Your task to perform on an android device: Open the calendar app, open the side menu, and click the "Day" option Image 0: 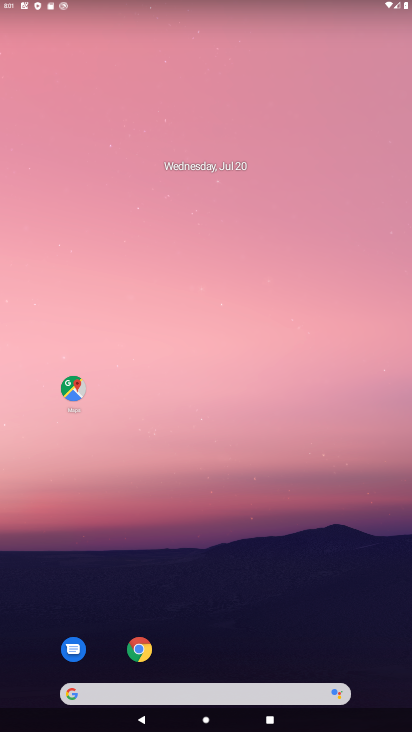
Step 0: drag from (208, 662) to (131, 125)
Your task to perform on an android device: Open the calendar app, open the side menu, and click the "Day" option Image 1: 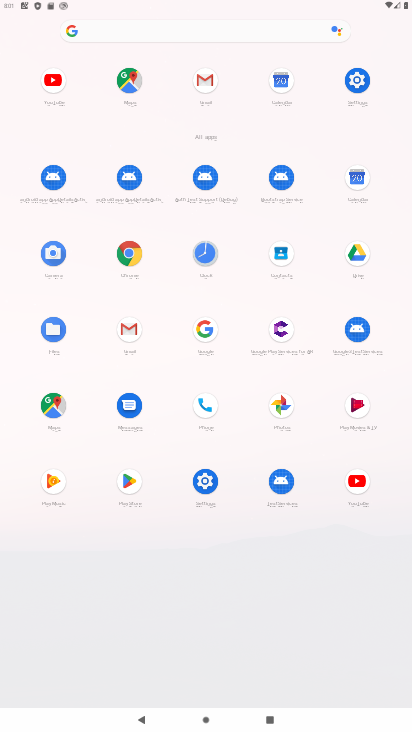
Step 1: click (342, 99)
Your task to perform on an android device: Open the calendar app, open the side menu, and click the "Day" option Image 2: 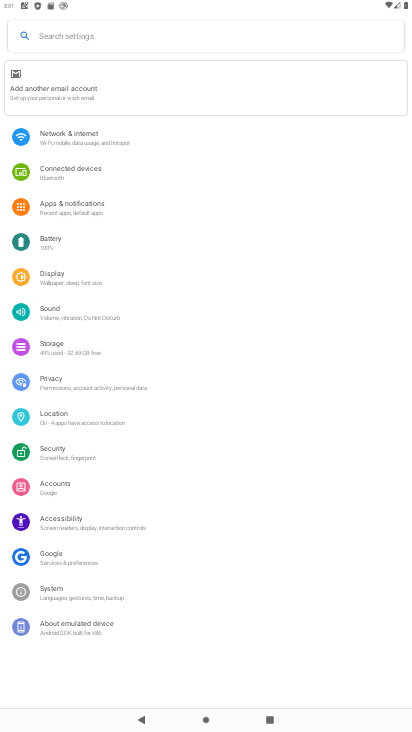
Step 2: press back button
Your task to perform on an android device: Open the calendar app, open the side menu, and click the "Day" option Image 3: 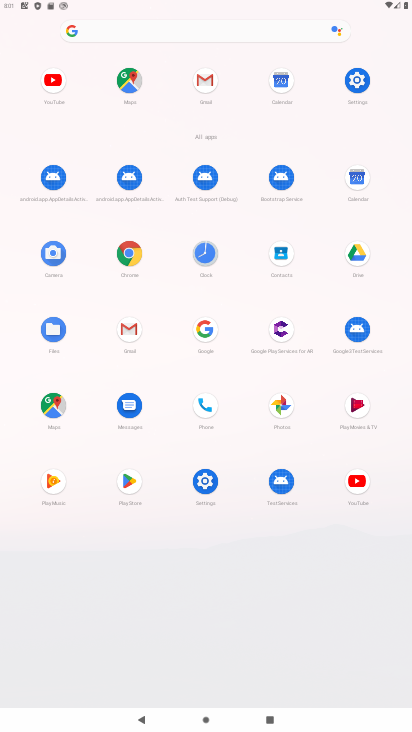
Step 3: click (273, 256)
Your task to perform on an android device: Open the calendar app, open the side menu, and click the "Day" option Image 4: 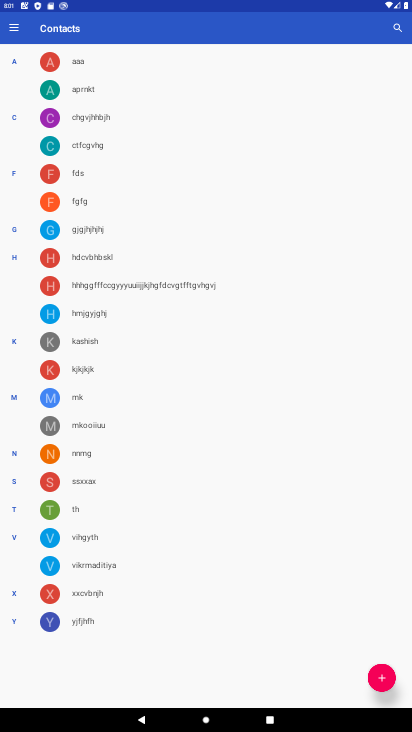
Step 4: click (10, 32)
Your task to perform on an android device: Open the calendar app, open the side menu, and click the "Day" option Image 5: 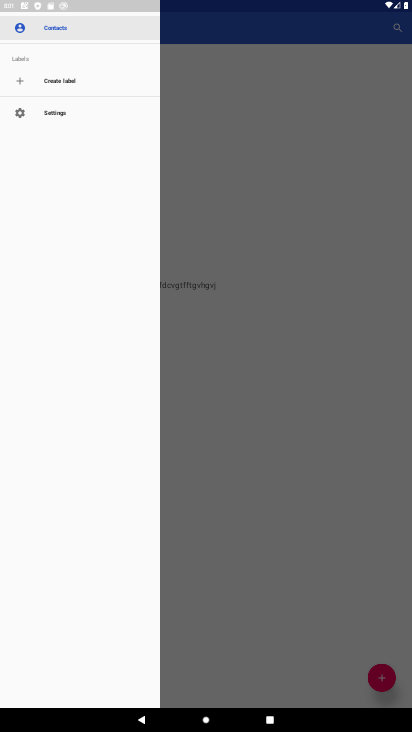
Step 5: click (182, 176)
Your task to perform on an android device: Open the calendar app, open the side menu, and click the "Day" option Image 6: 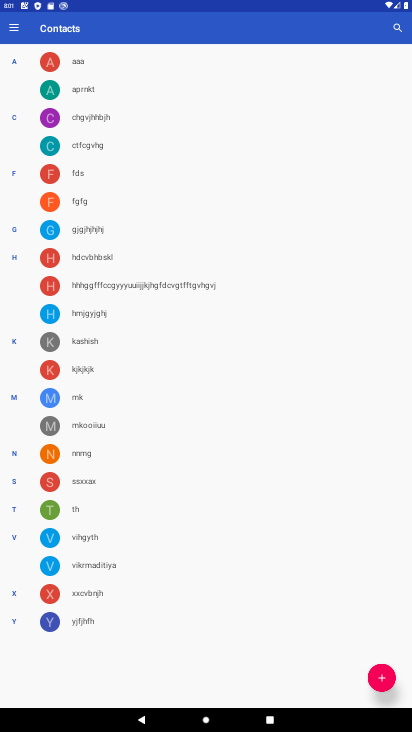
Step 6: press home button
Your task to perform on an android device: Open the calendar app, open the side menu, and click the "Day" option Image 7: 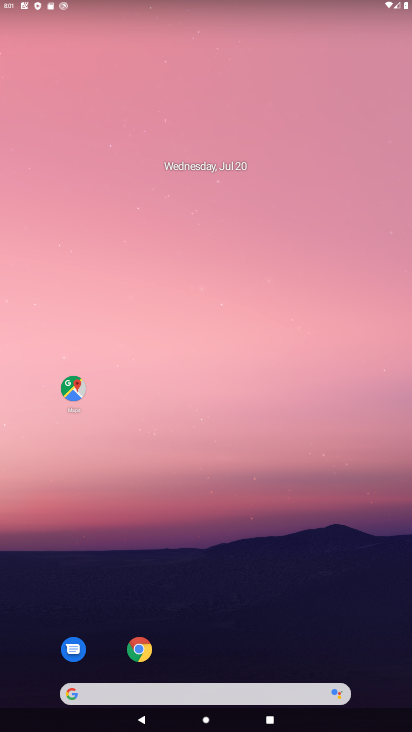
Step 7: drag from (236, 644) to (205, 116)
Your task to perform on an android device: Open the calendar app, open the side menu, and click the "Day" option Image 8: 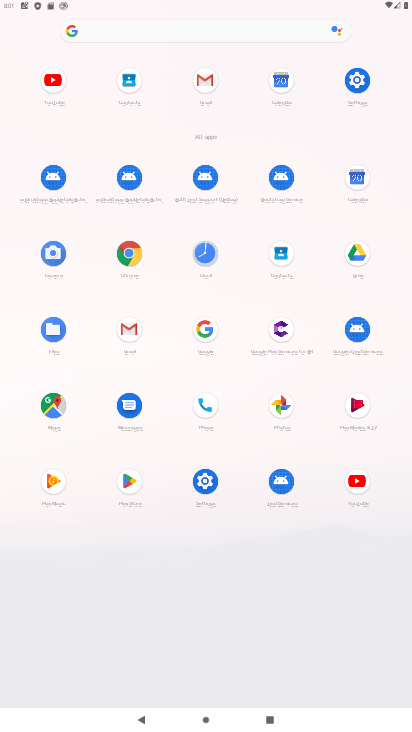
Step 8: click (350, 173)
Your task to perform on an android device: Open the calendar app, open the side menu, and click the "Day" option Image 9: 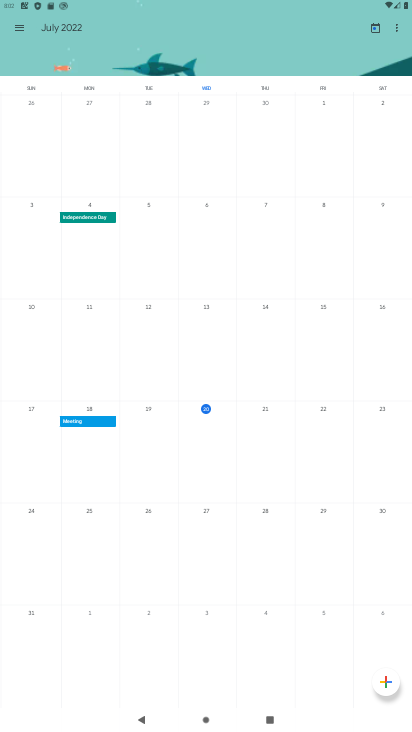
Step 9: click (23, 34)
Your task to perform on an android device: Open the calendar app, open the side menu, and click the "Day" option Image 10: 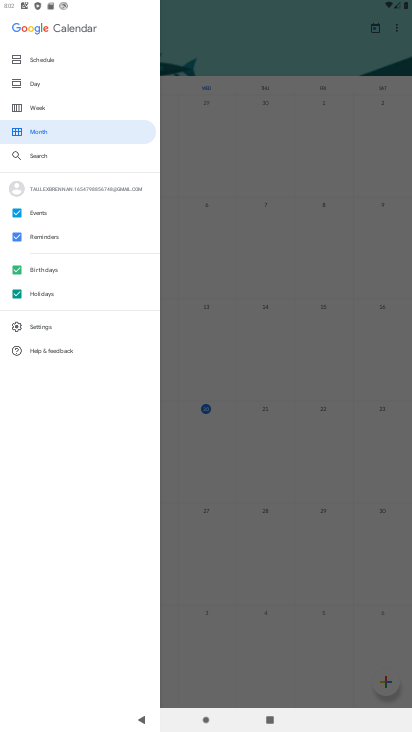
Step 10: click (34, 81)
Your task to perform on an android device: Open the calendar app, open the side menu, and click the "Day" option Image 11: 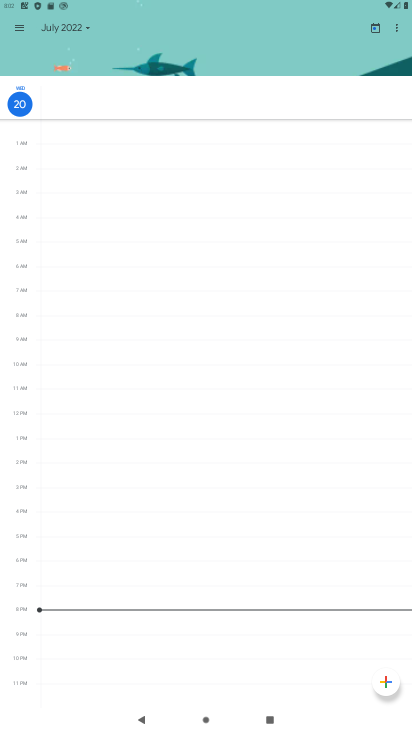
Step 11: task complete